Your task to perform on an android device: Go to Yahoo.com Image 0: 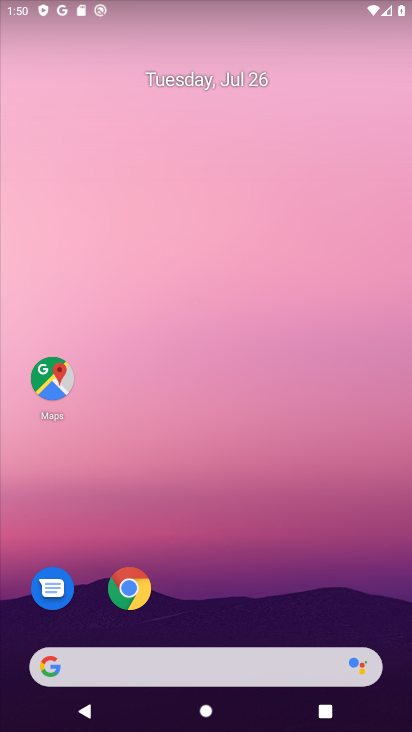
Step 0: drag from (208, 690) to (126, 167)
Your task to perform on an android device: Go to Yahoo.com Image 1: 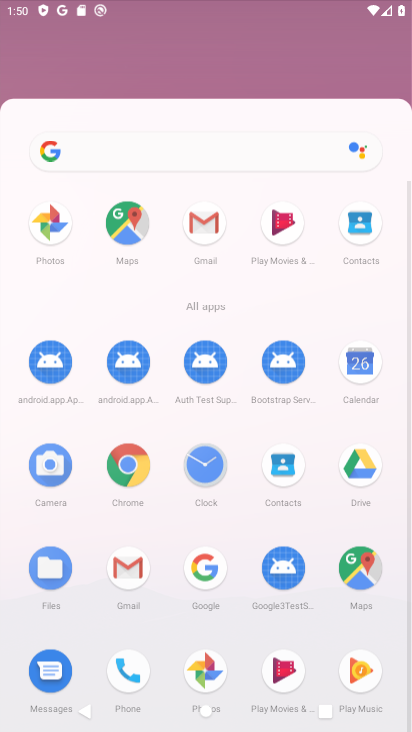
Step 1: drag from (247, 346) to (216, 205)
Your task to perform on an android device: Go to Yahoo.com Image 2: 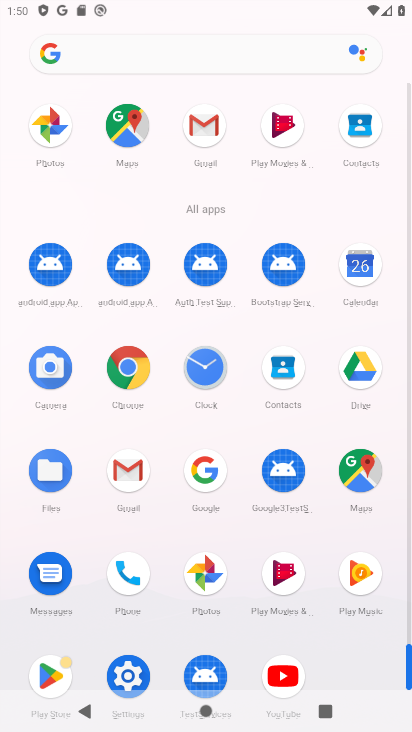
Step 2: drag from (205, 82) to (237, 180)
Your task to perform on an android device: Go to Yahoo.com Image 3: 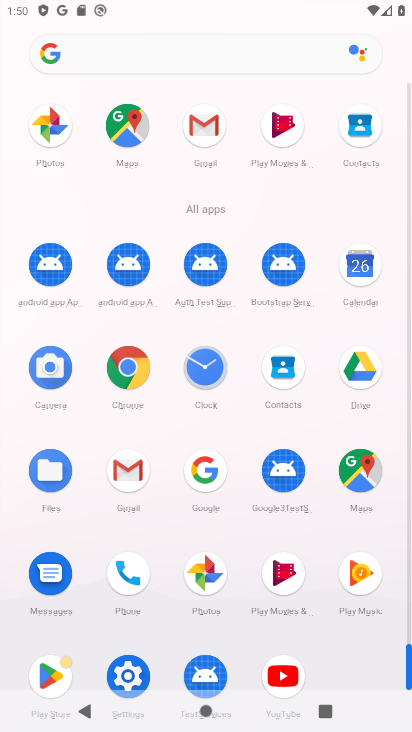
Step 3: click (127, 373)
Your task to perform on an android device: Go to Yahoo.com Image 4: 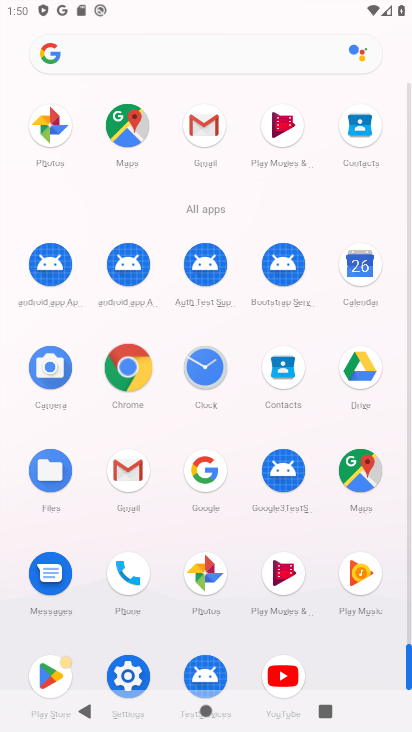
Step 4: click (136, 366)
Your task to perform on an android device: Go to Yahoo.com Image 5: 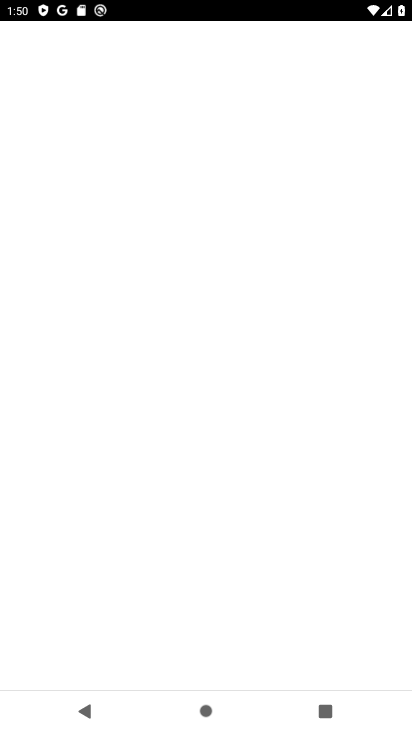
Step 5: click (138, 364)
Your task to perform on an android device: Go to Yahoo.com Image 6: 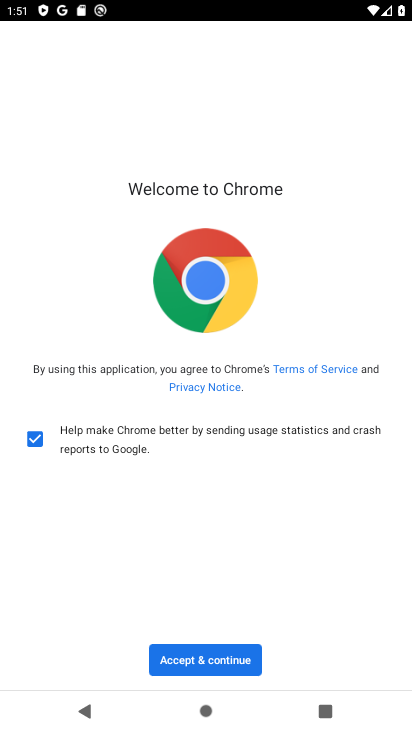
Step 6: click (219, 657)
Your task to perform on an android device: Go to Yahoo.com Image 7: 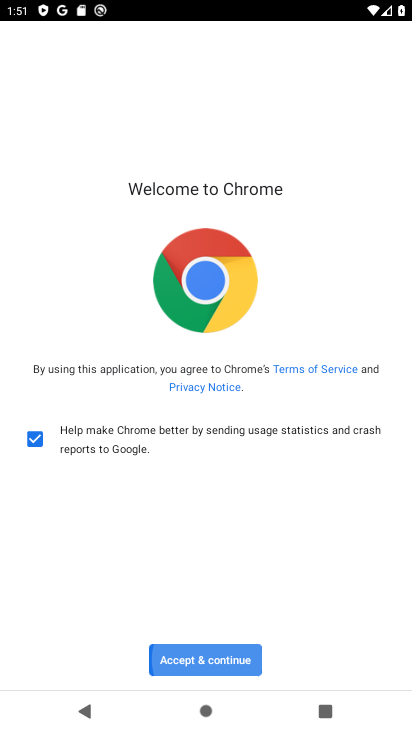
Step 7: click (223, 652)
Your task to perform on an android device: Go to Yahoo.com Image 8: 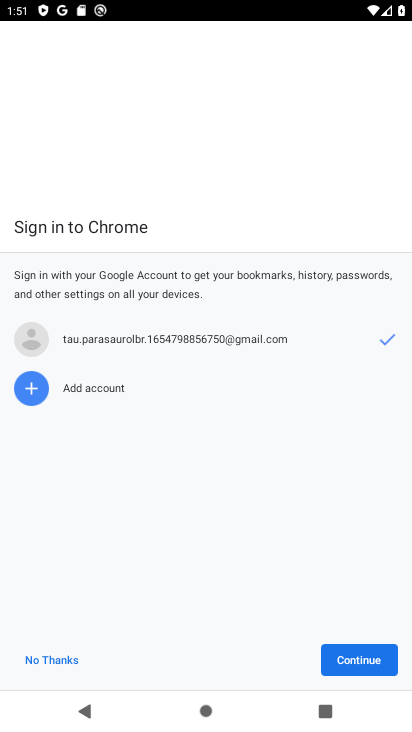
Step 8: click (223, 652)
Your task to perform on an android device: Go to Yahoo.com Image 9: 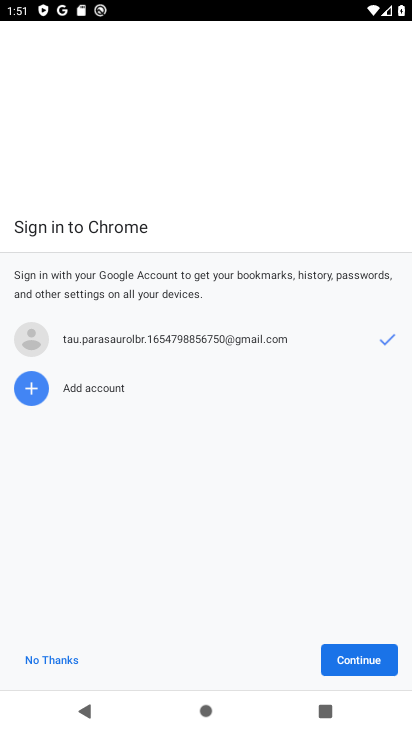
Step 9: click (34, 650)
Your task to perform on an android device: Go to Yahoo.com Image 10: 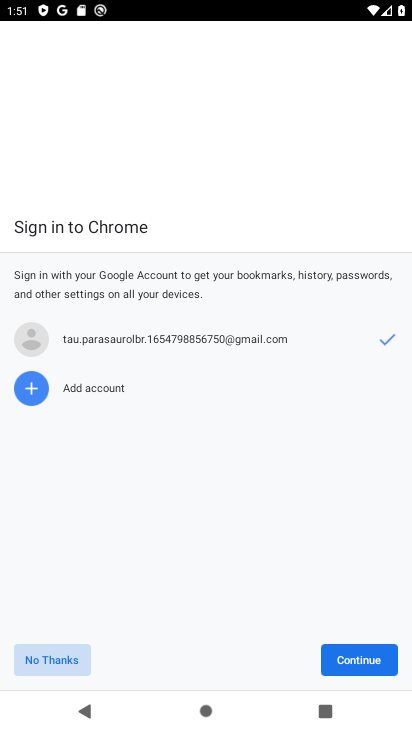
Step 10: click (27, 659)
Your task to perform on an android device: Go to Yahoo.com Image 11: 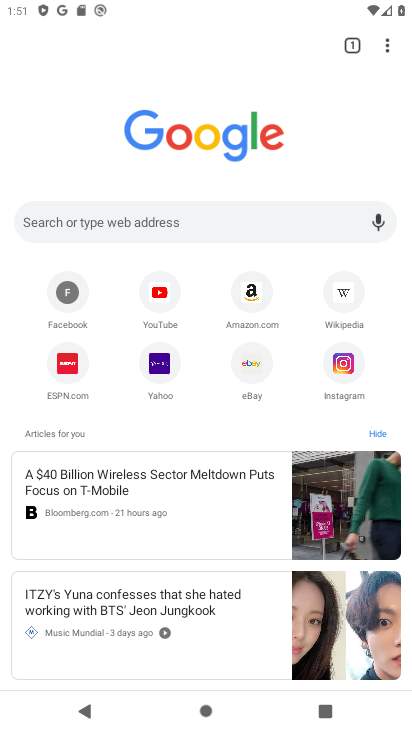
Step 11: click (150, 370)
Your task to perform on an android device: Go to Yahoo.com Image 12: 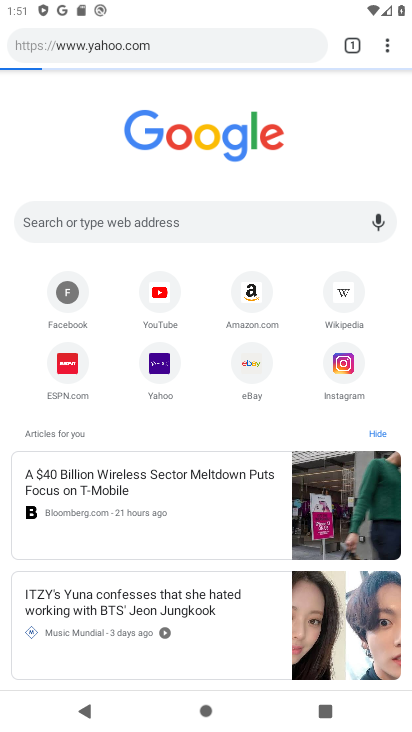
Step 12: click (160, 370)
Your task to perform on an android device: Go to Yahoo.com Image 13: 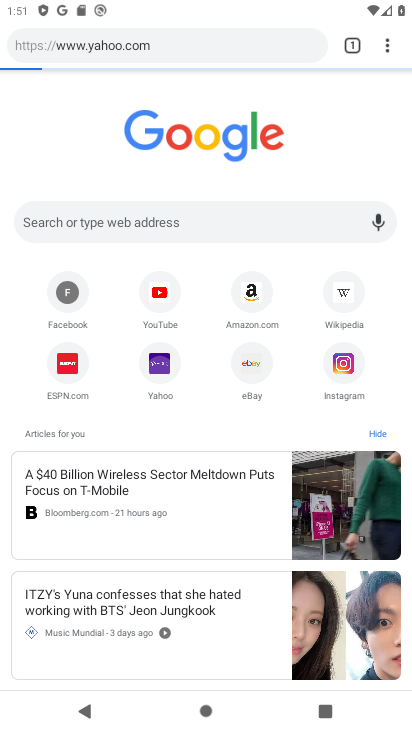
Step 13: click (163, 367)
Your task to perform on an android device: Go to Yahoo.com Image 14: 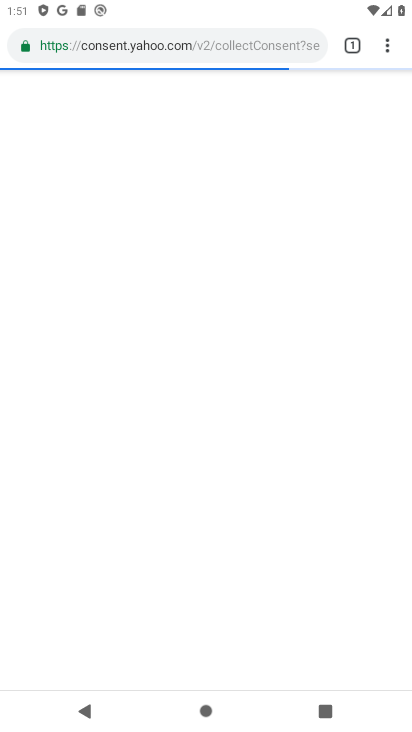
Step 14: click (160, 362)
Your task to perform on an android device: Go to Yahoo.com Image 15: 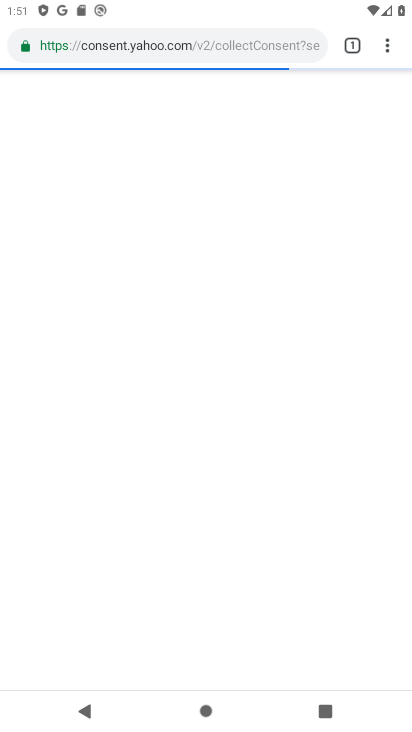
Step 15: click (162, 356)
Your task to perform on an android device: Go to Yahoo.com Image 16: 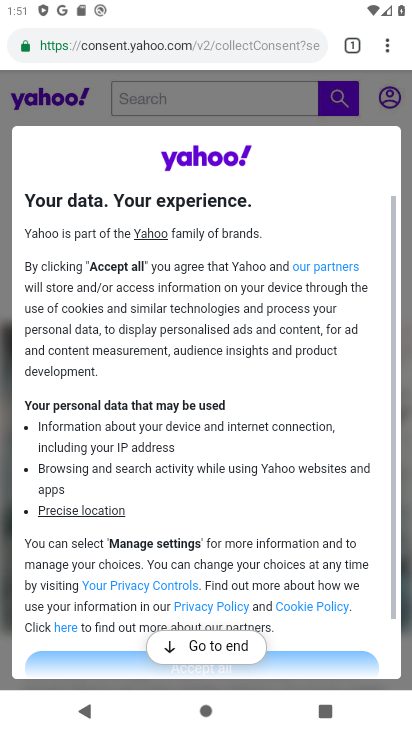
Step 16: task complete